Your task to perform on an android device: show emergency info Image 0: 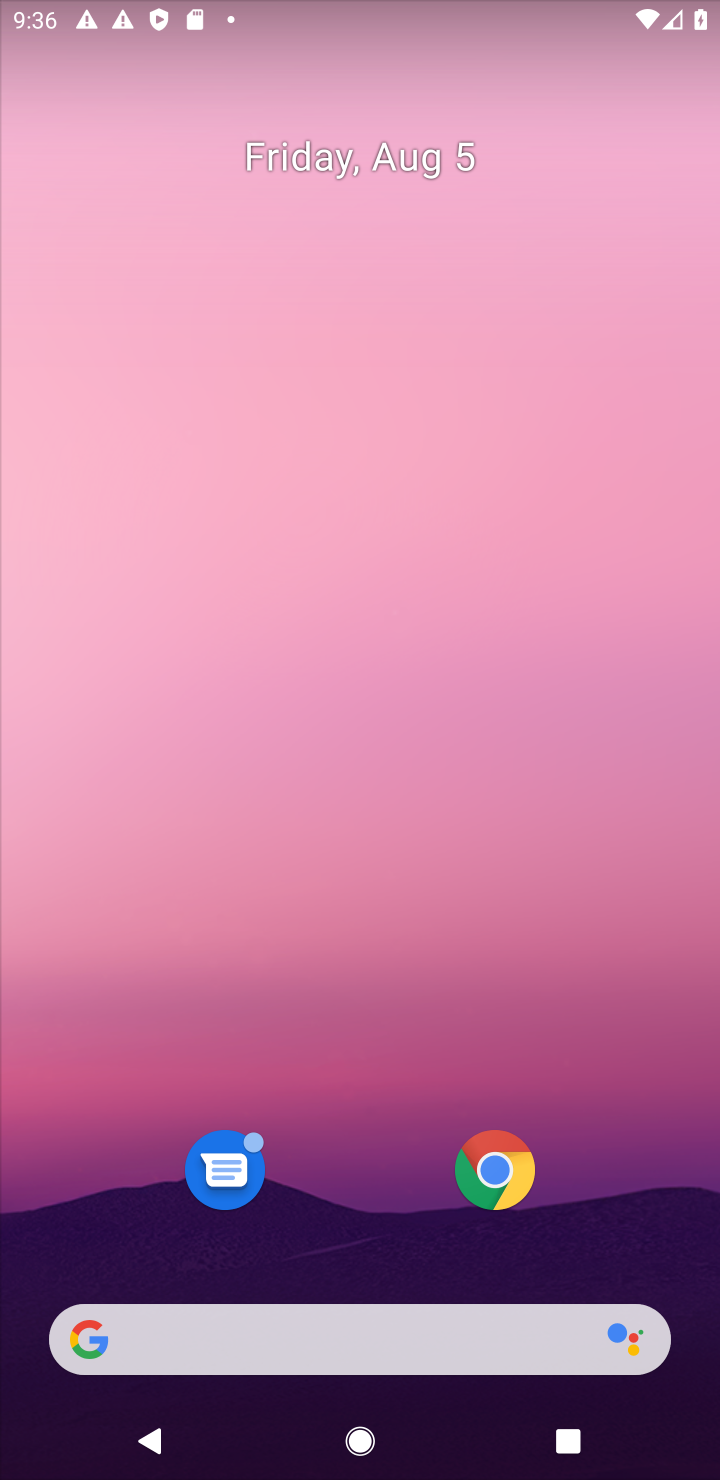
Step 0: drag from (668, 1213) to (546, 18)
Your task to perform on an android device: show emergency info Image 1: 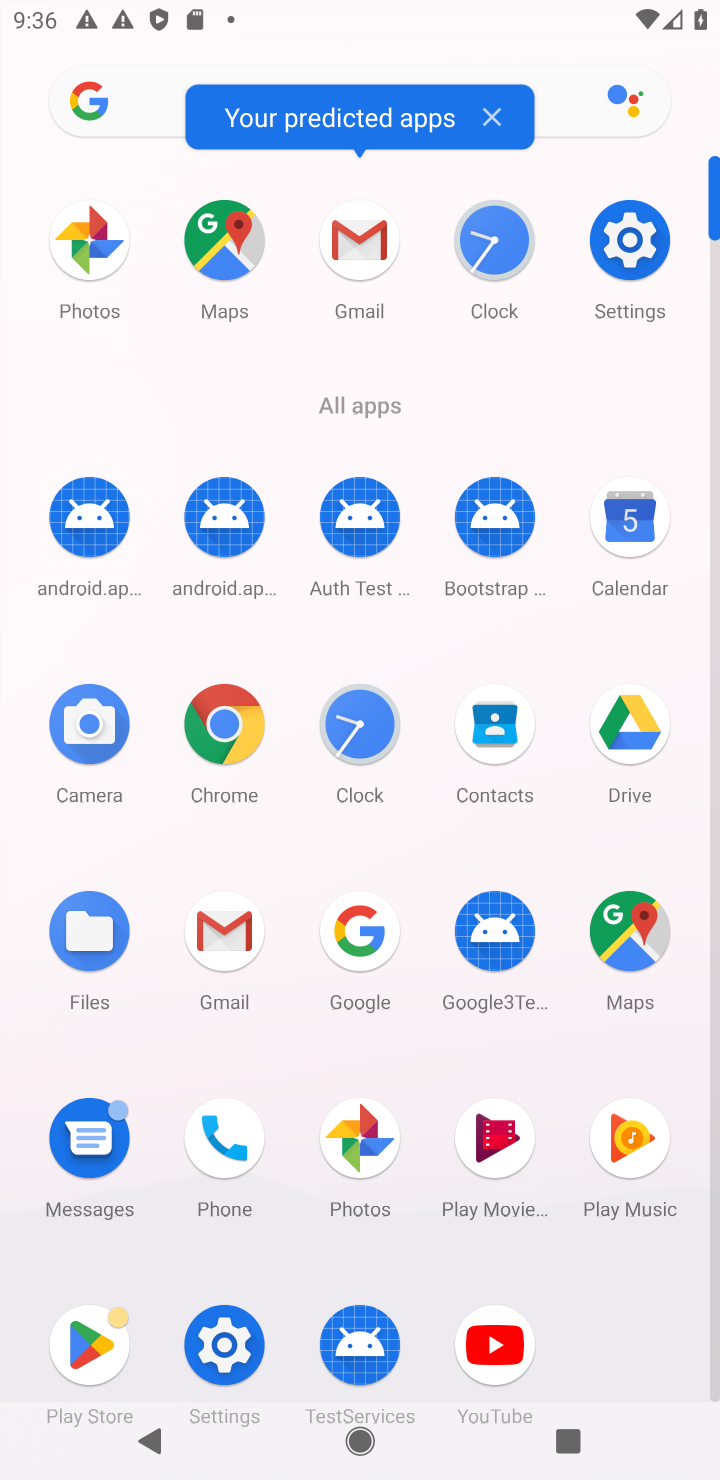
Step 1: click (624, 228)
Your task to perform on an android device: show emergency info Image 2: 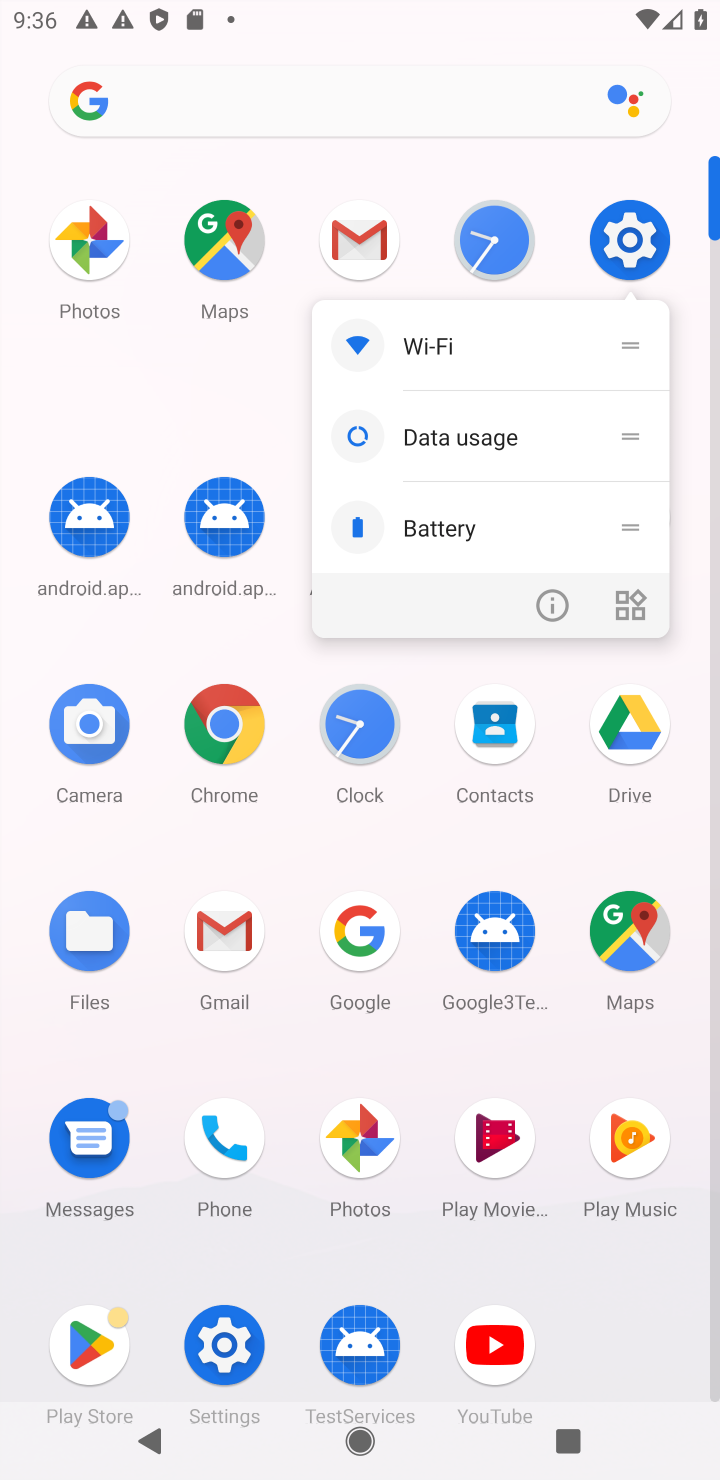
Step 2: click (630, 243)
Your task to perform on an android device: show emergency info Image 3: 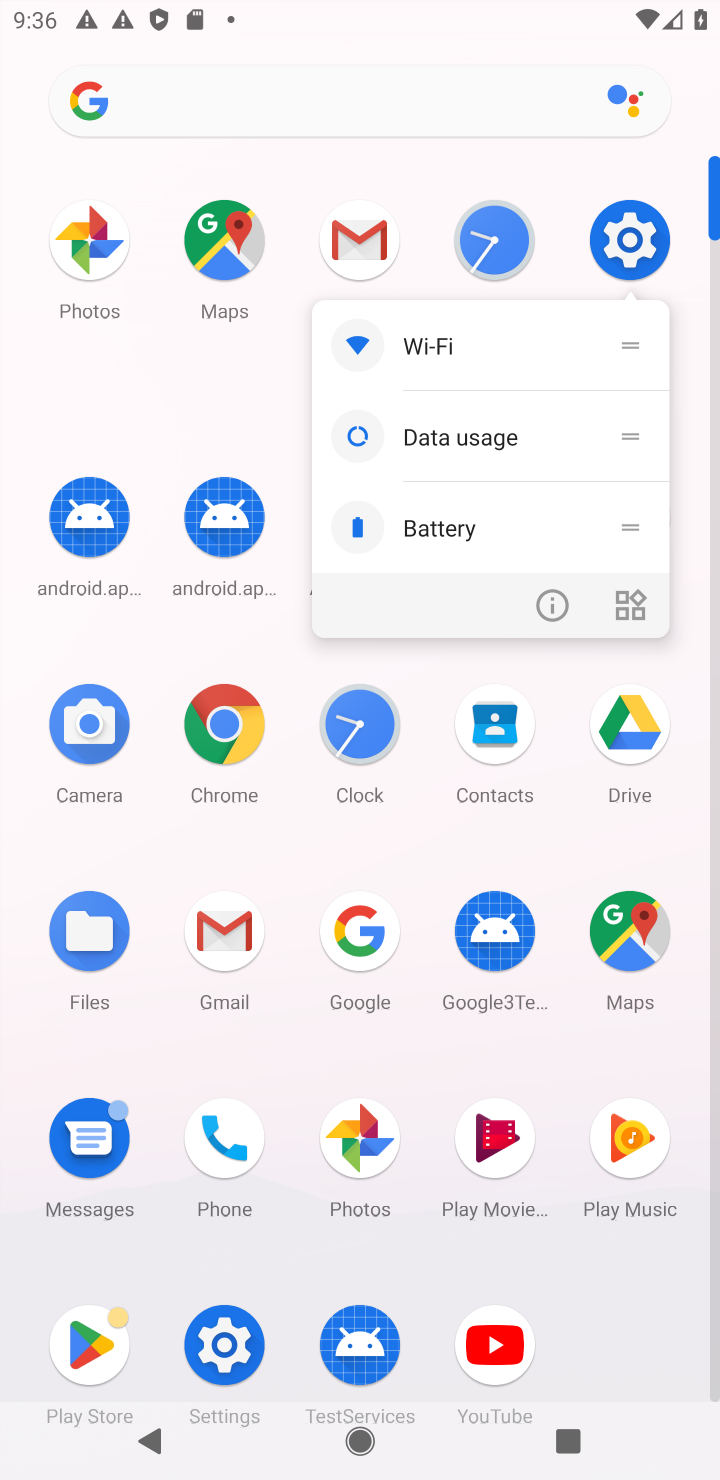
Step 3: click (630, 243)
Your task to perform on an android device: show emergency info Image 4: 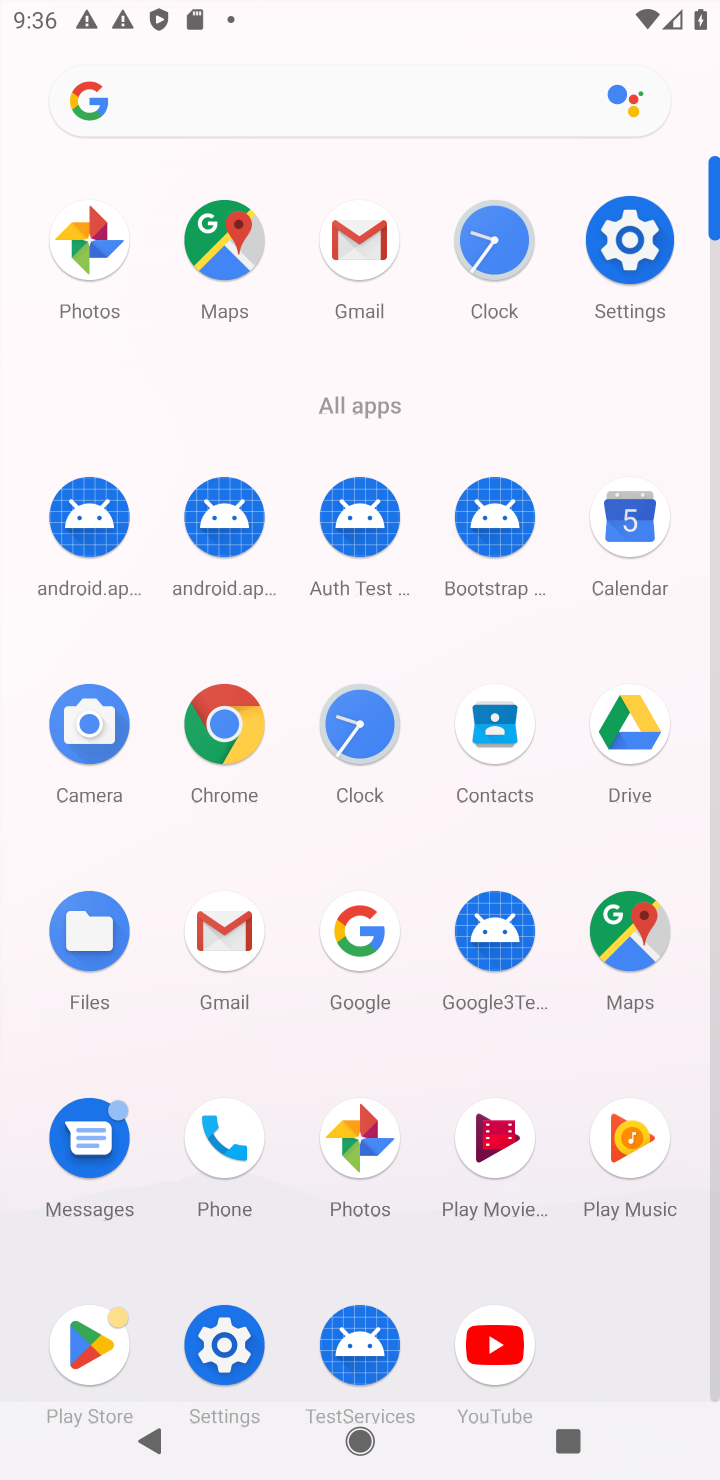
Step 4: click (630, 243)
Your task to perform on an android device: show emergency info Image 5: 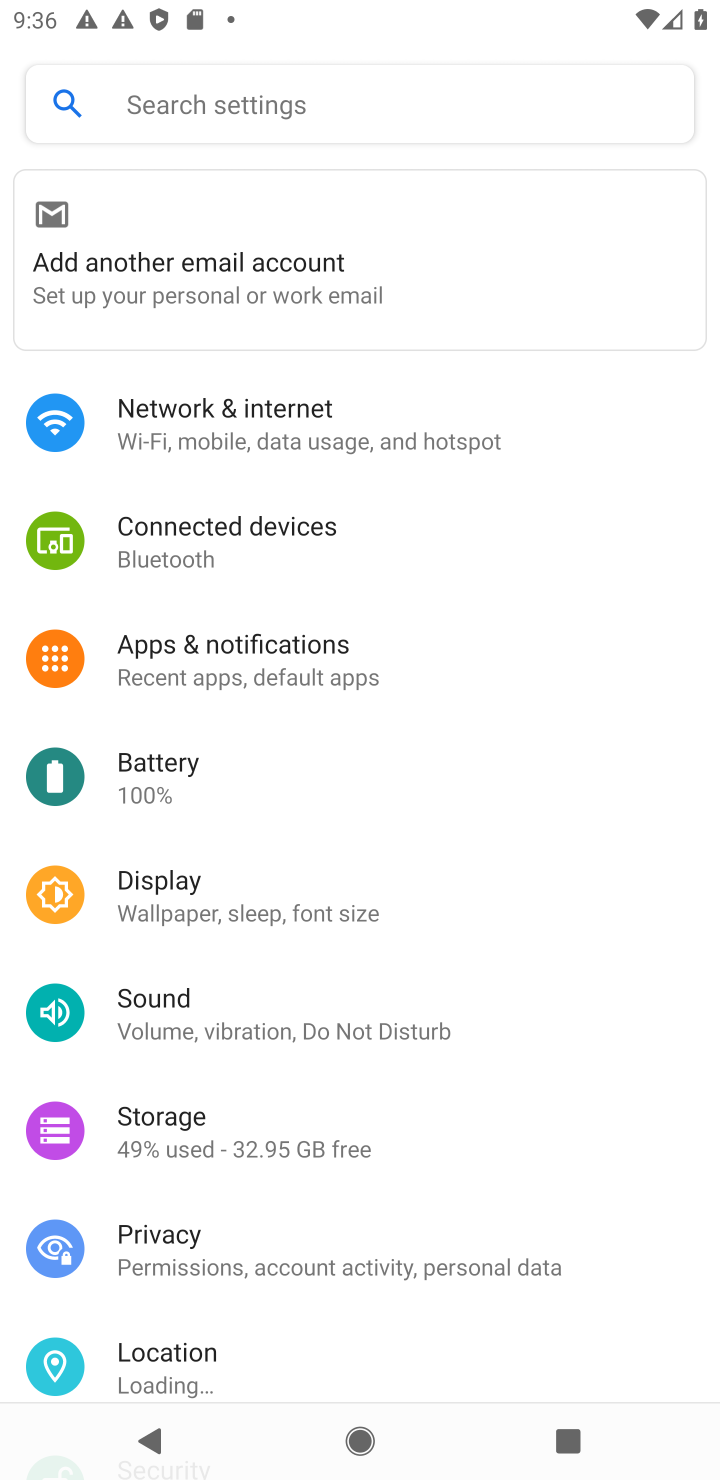
Step 5: drag from (604, 1183) to (419, 148)
Your task to perform on an android device: show emergency info Image 6: 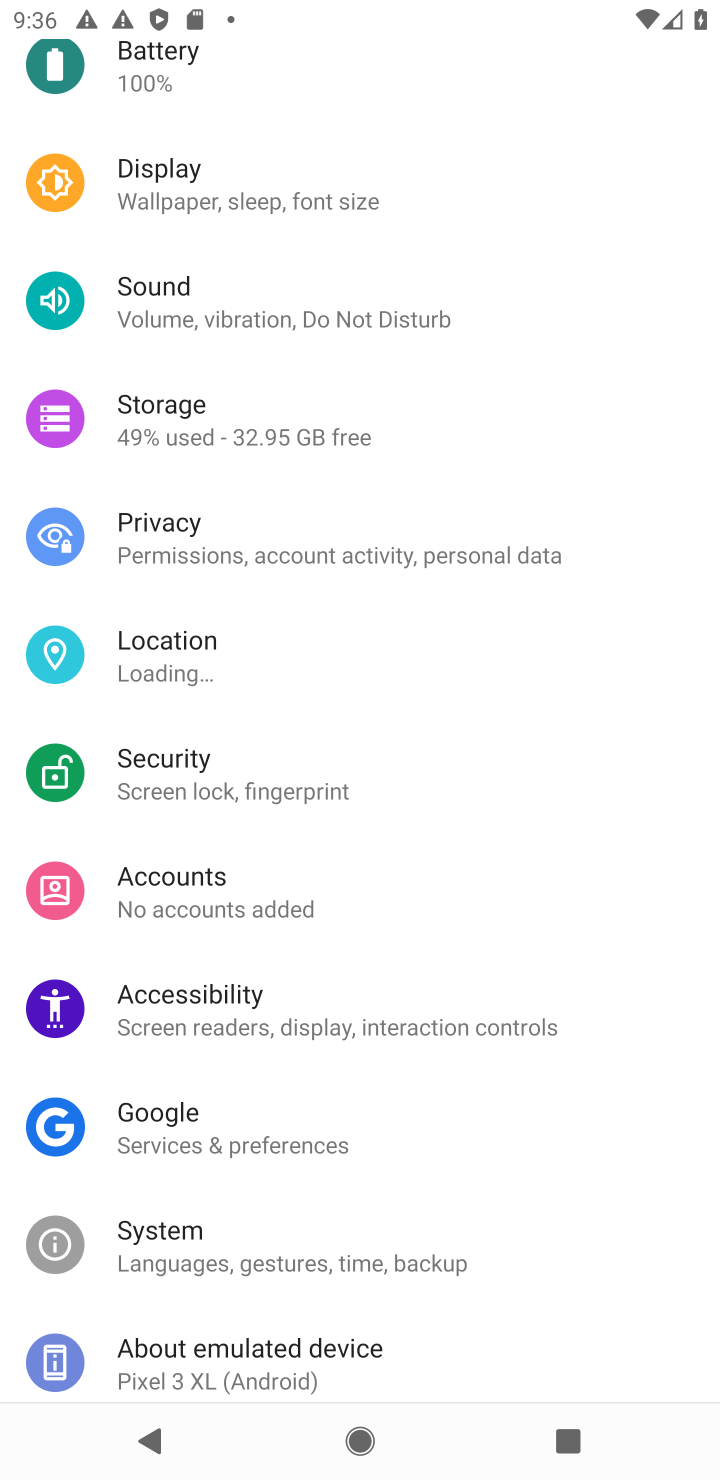
Step 6: drag from (543, 1207) to (346, 339)
Your task to perform on an android device: show emergency info Image 7: 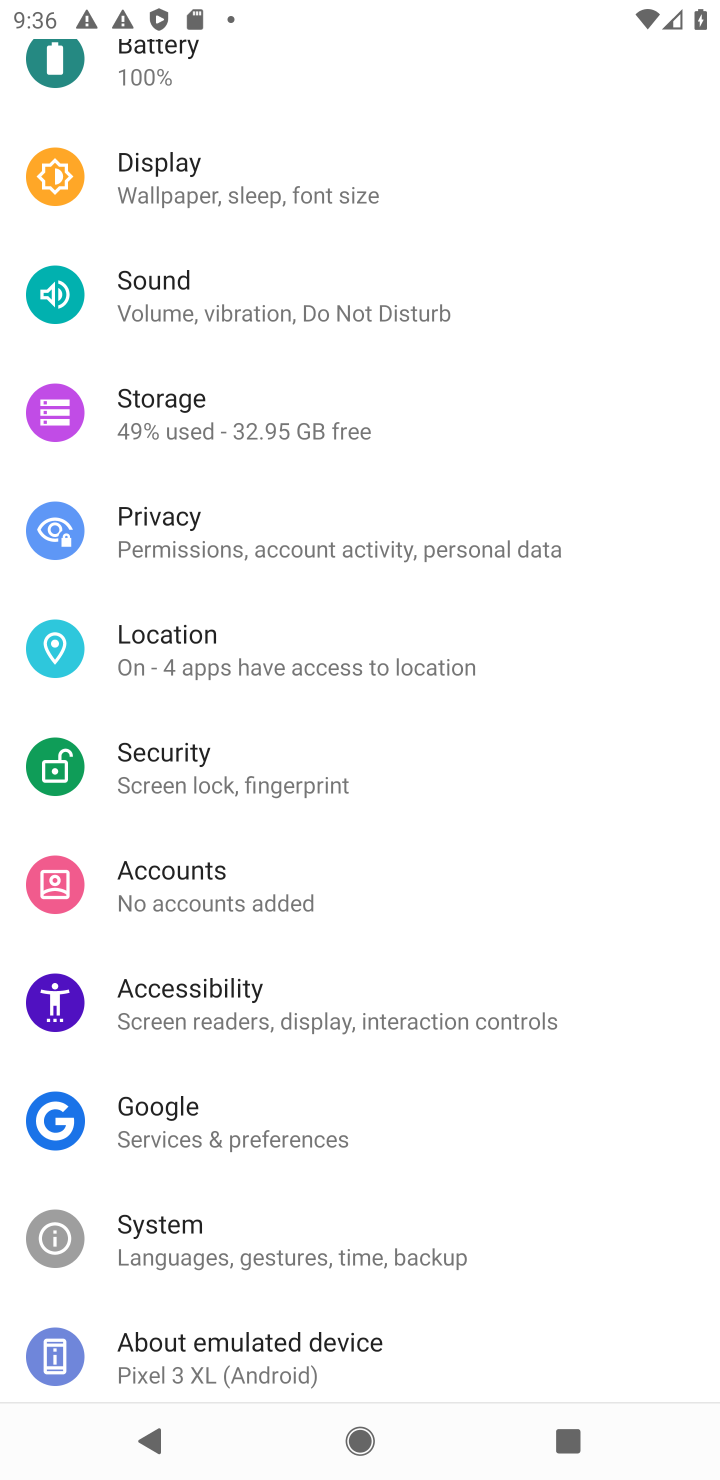
Step 7: click (225, 1348)
Your task to perform on an android device: show emergency info Image 8: 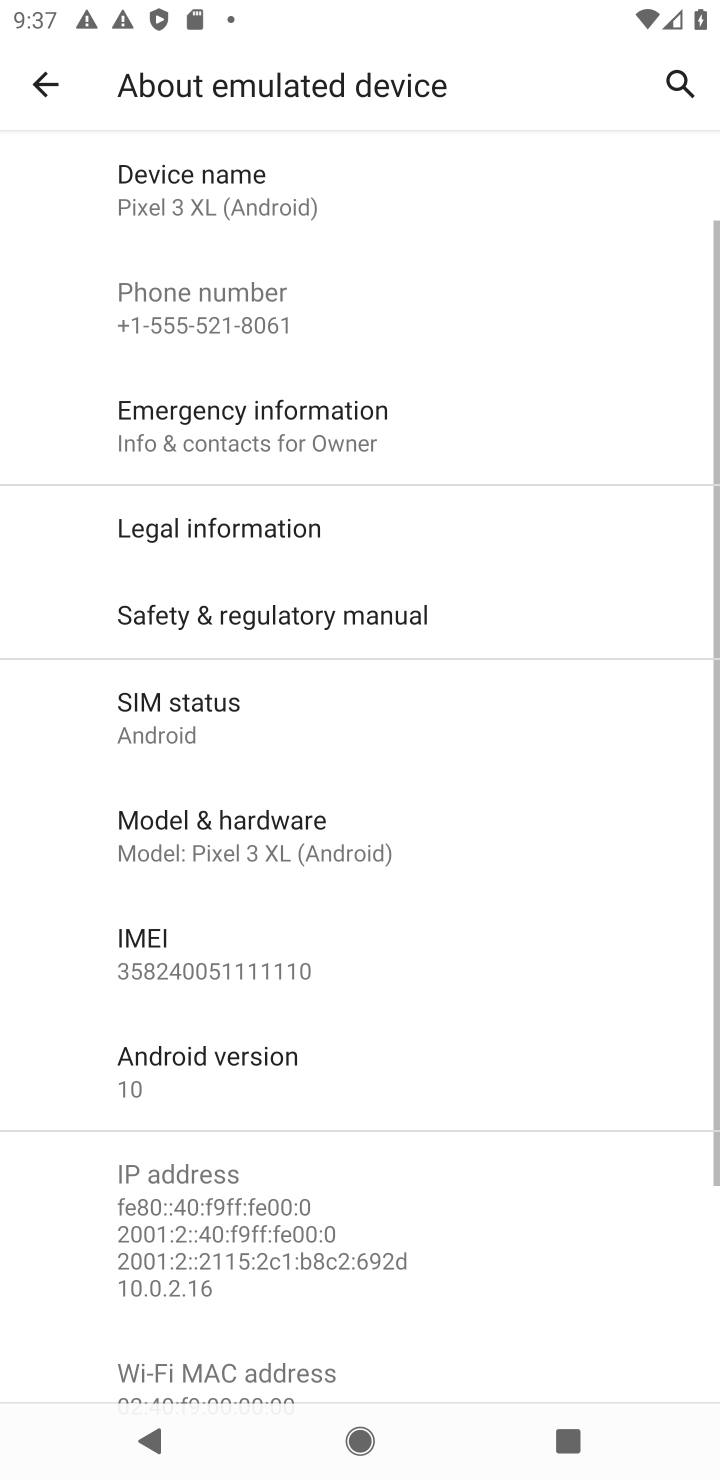
Step 8: click (315, 431)
Your task to perform on an android device: show emergency info Image 9: 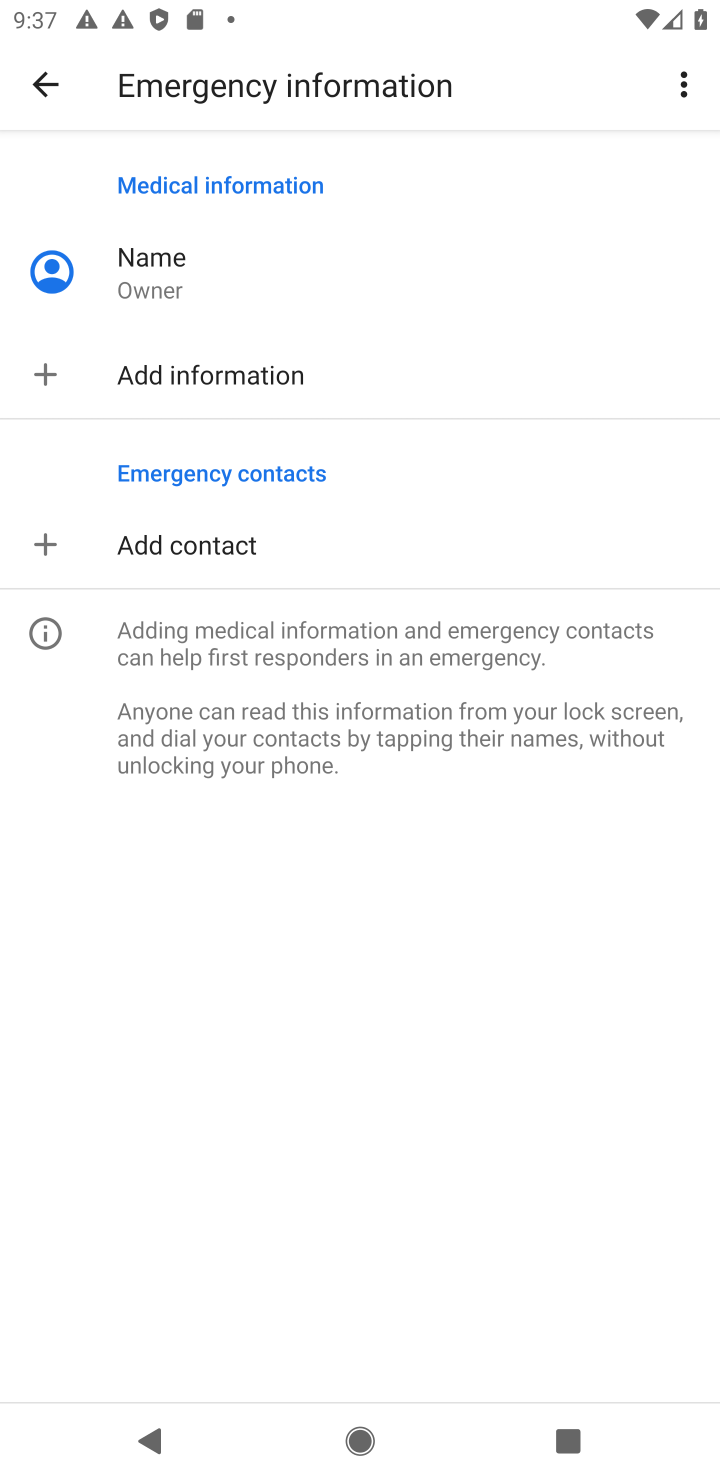
Step 9: task complete